Your task to perform on an android device: check android version Image 0: 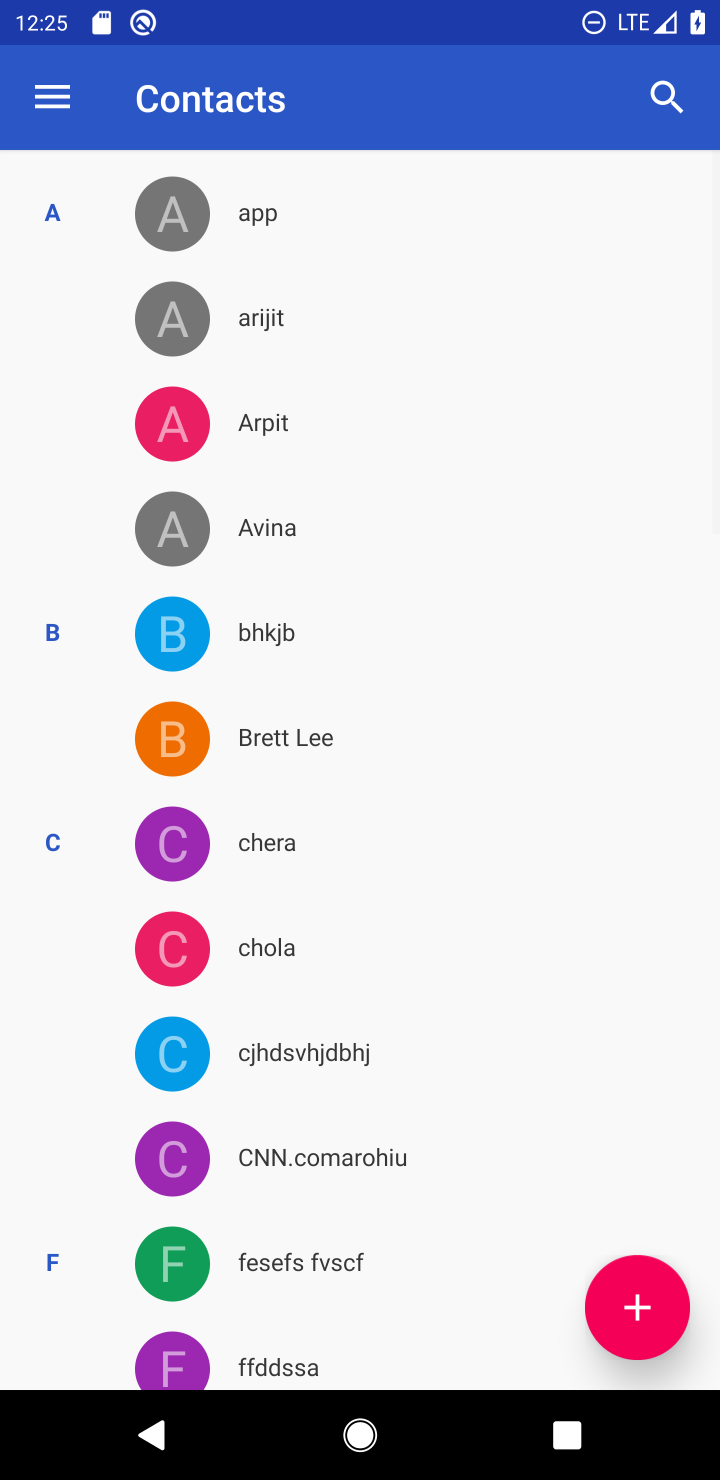
Step 0: press home button
Your task to perform on an android device: check android version Image 1: 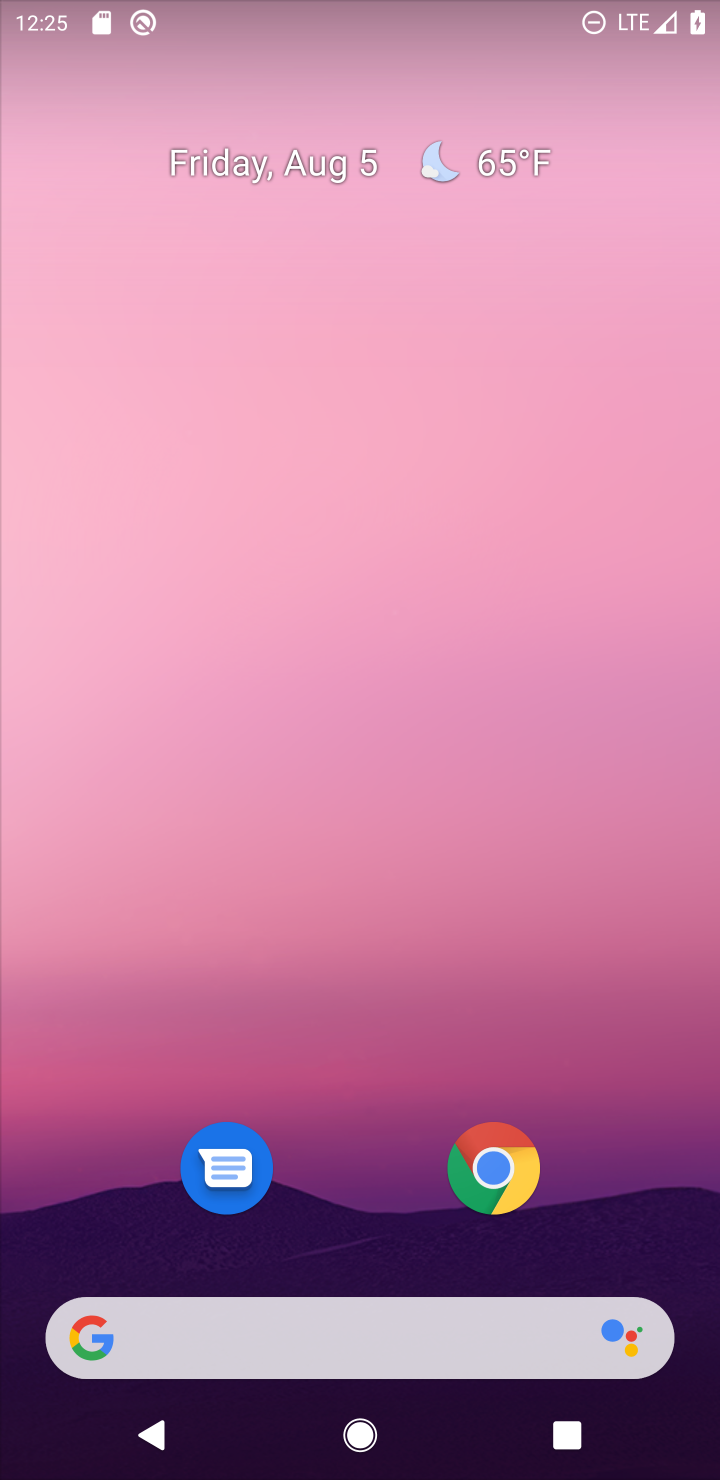
Step 1: drag from (653, 1228) to (292, 19)
Your task to perform on an android device: check android version Image 2: 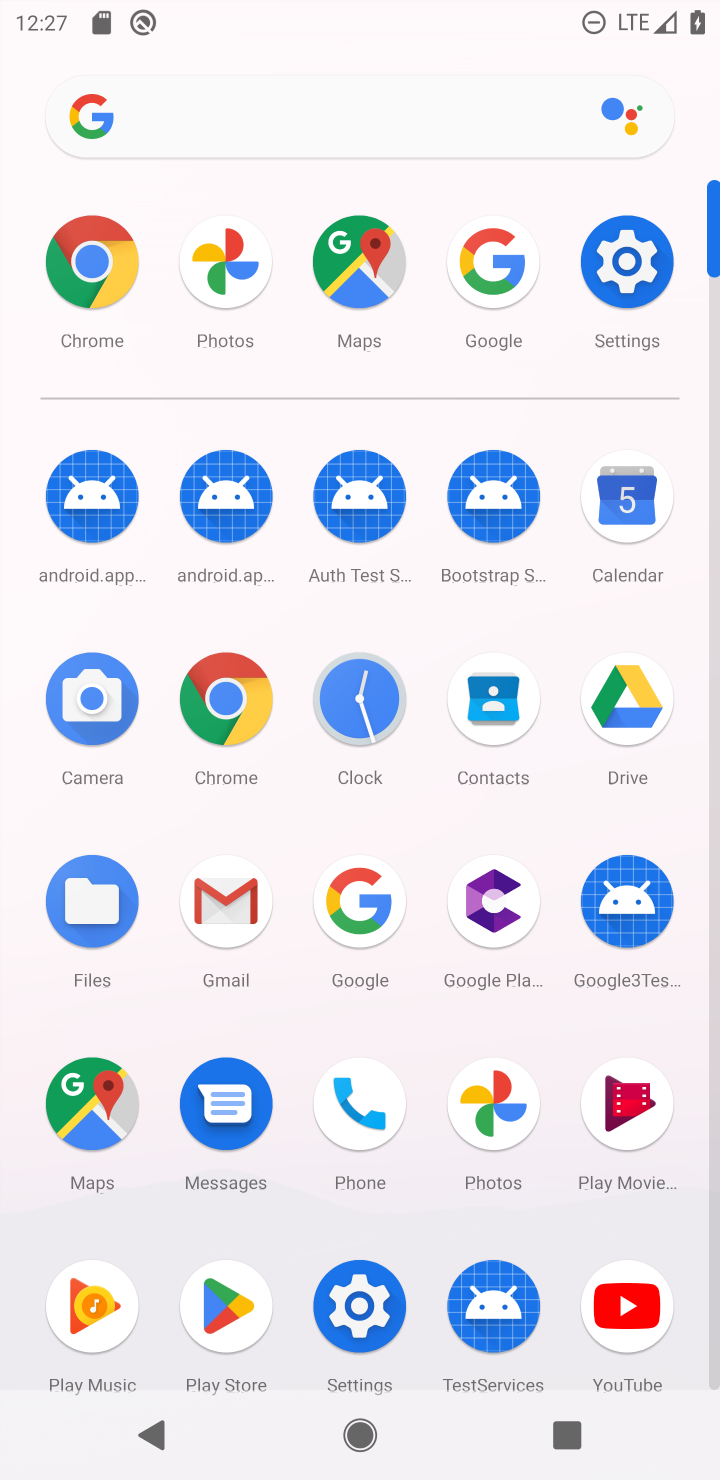
Step 2: click (352, 1285)
Your task to perform on an android device: check android version Image 3: 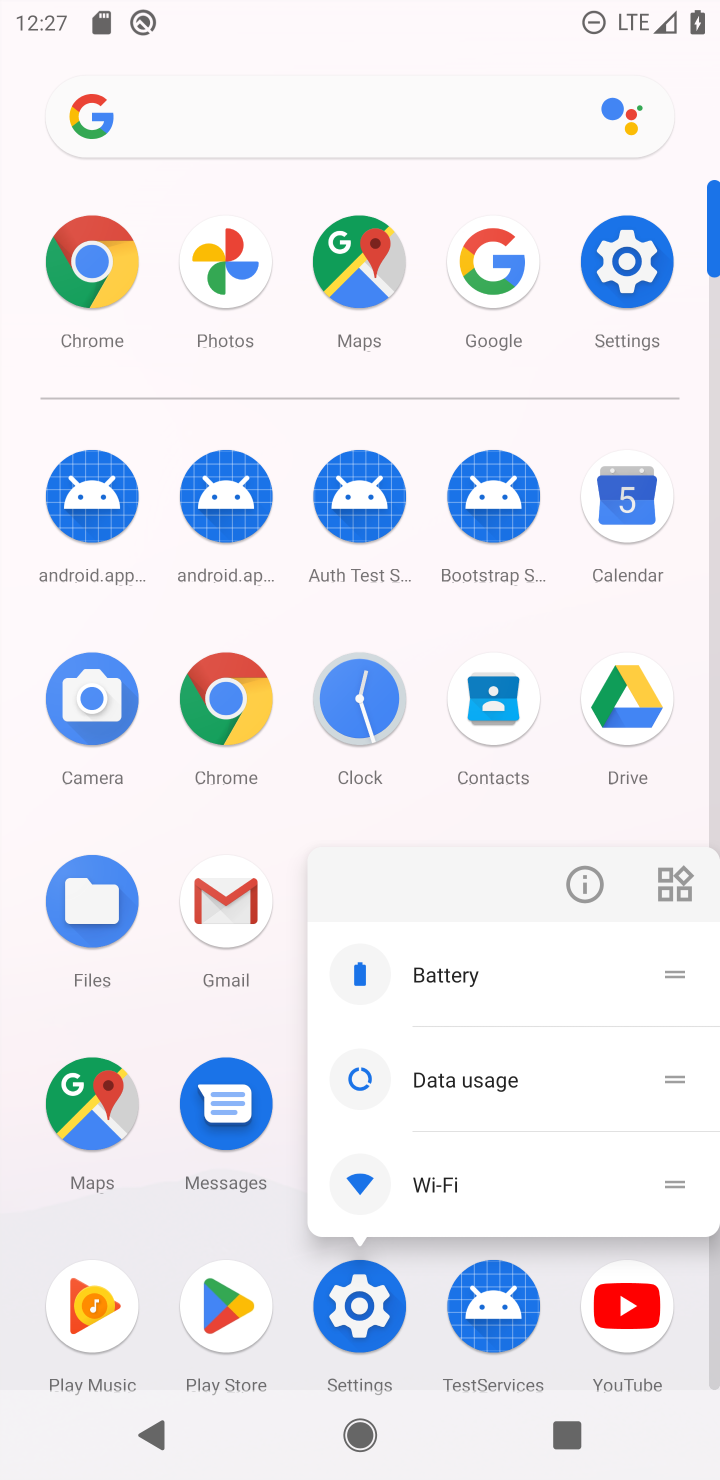
Step 3: click (352, 1287)
Your task to perform on an android device: check android version Image 4: 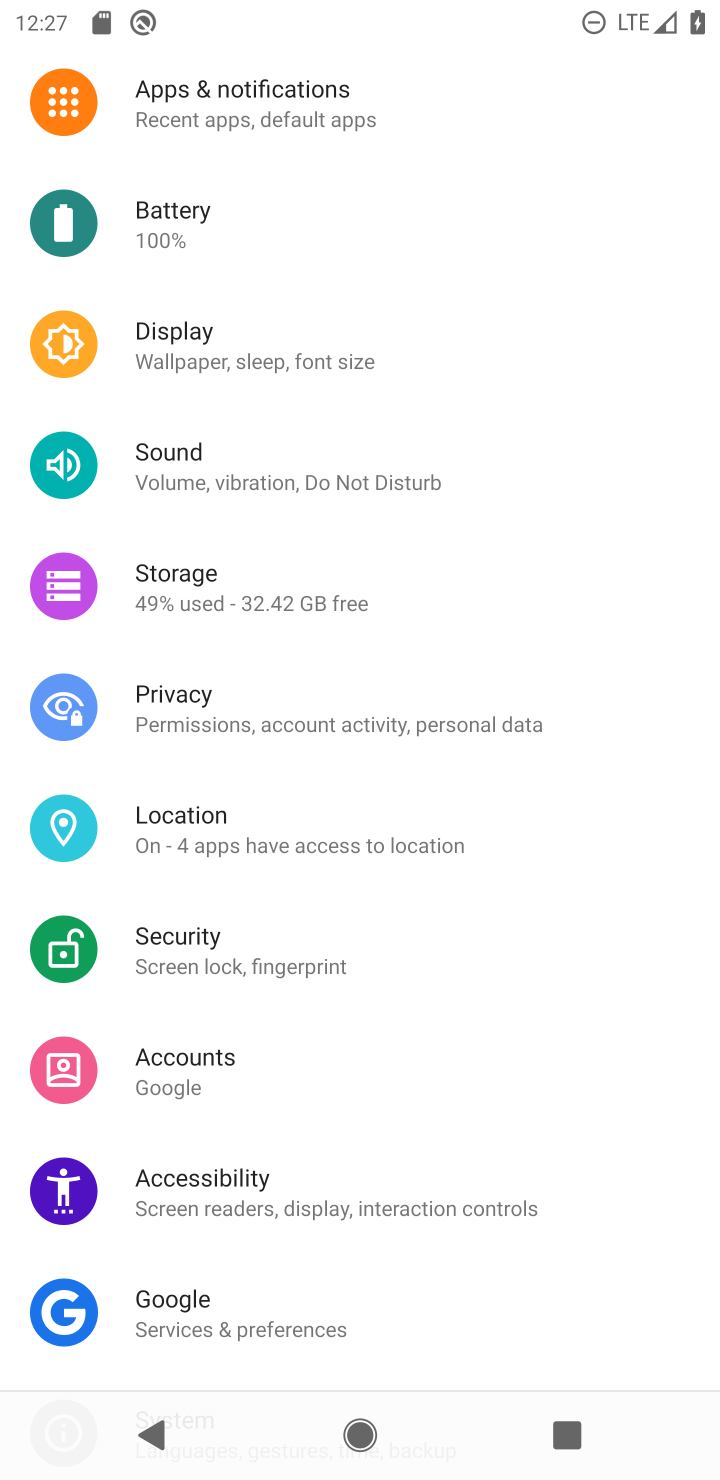
Step 4: drag from (195, 1309) to (330, 431)
Your task to perform on an android device: check android version Image 5: 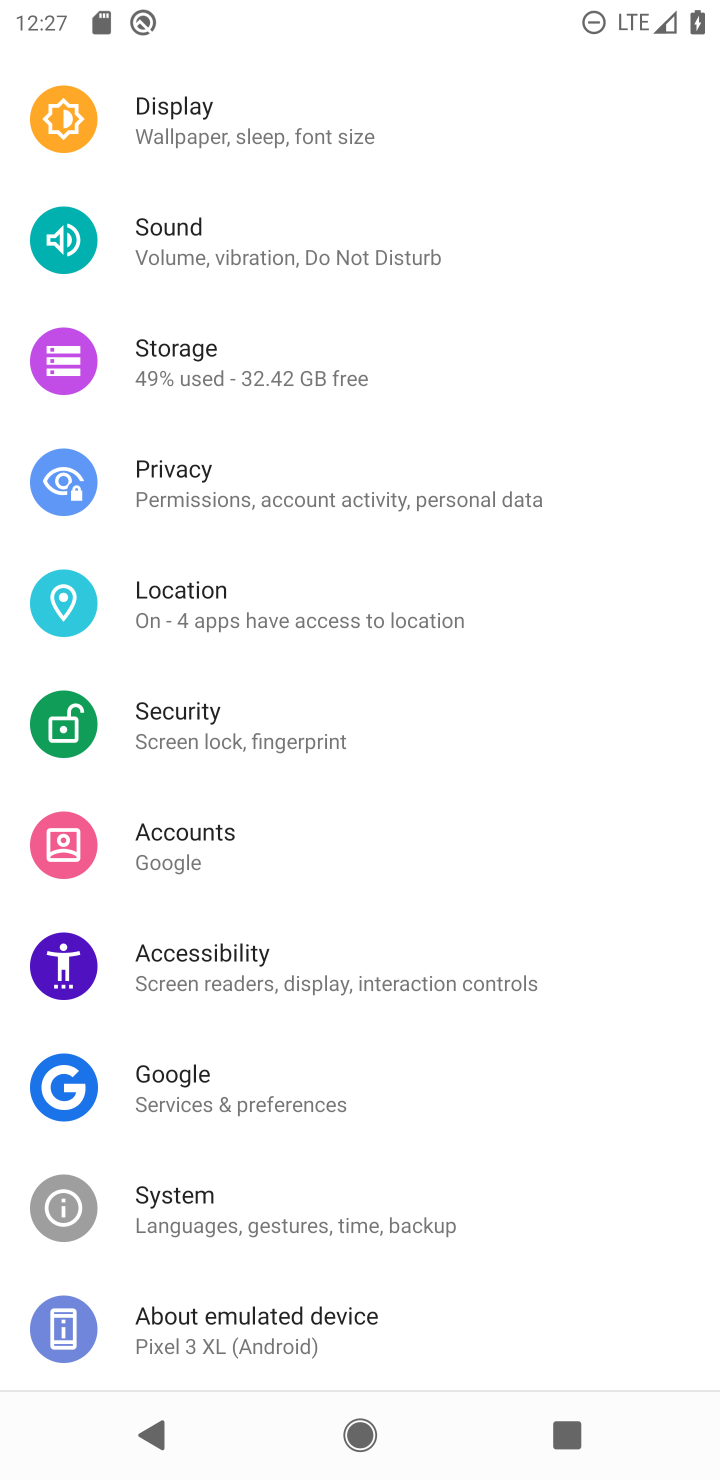
Step 5: click (201, 1326)
Your task to perform on an android device: check android version Image 6: 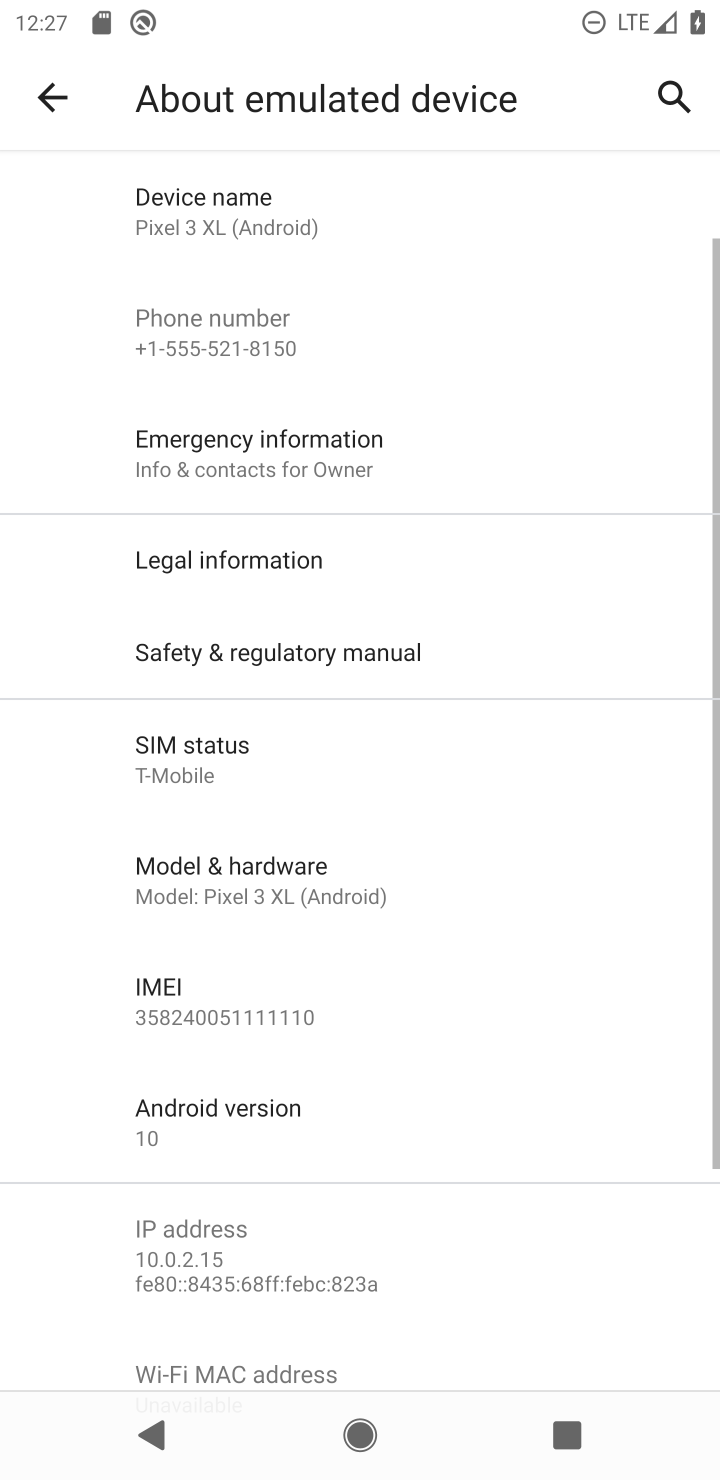
Step 6: click (206, 1138)
Your task to perform on an android device: check android version Image 7: 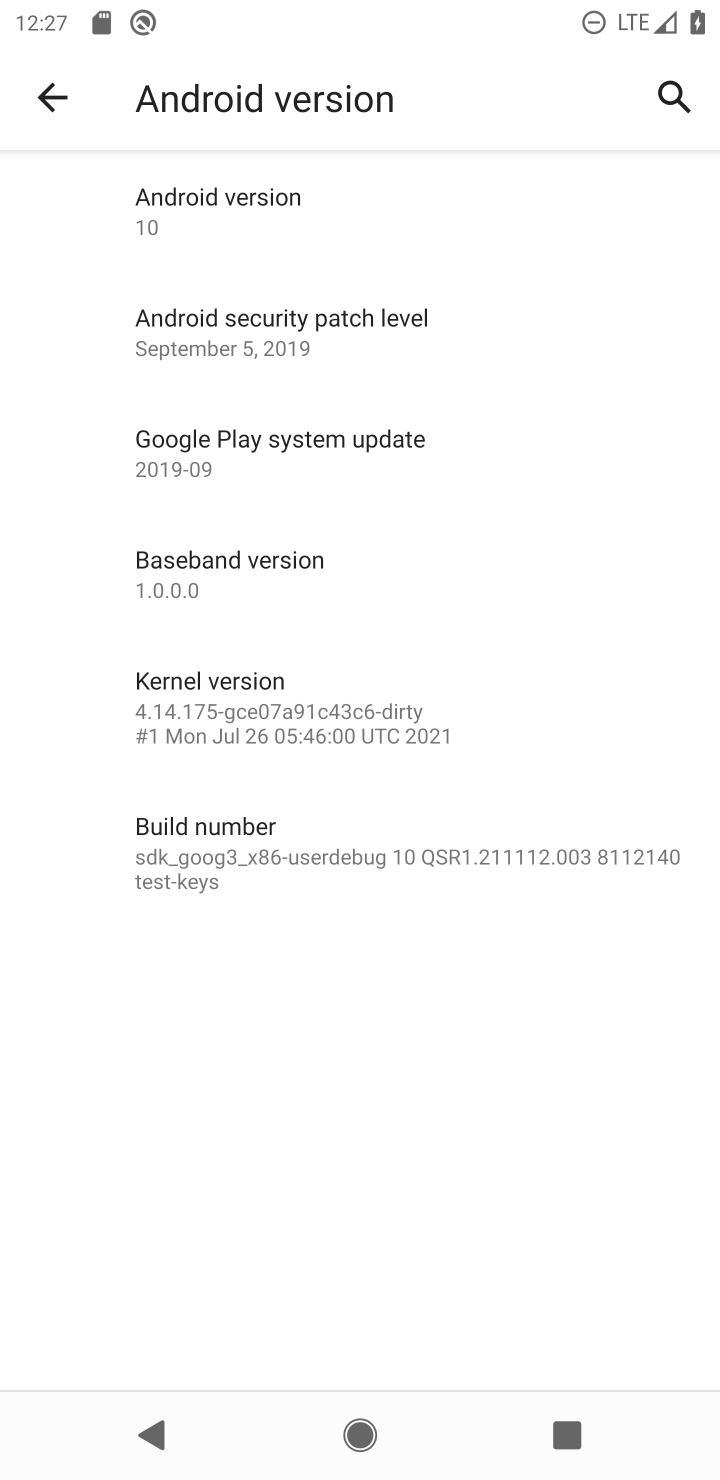
Step 7: task complete